Your task to perform on an android device: turn on data saver in the chrome app Image 0: 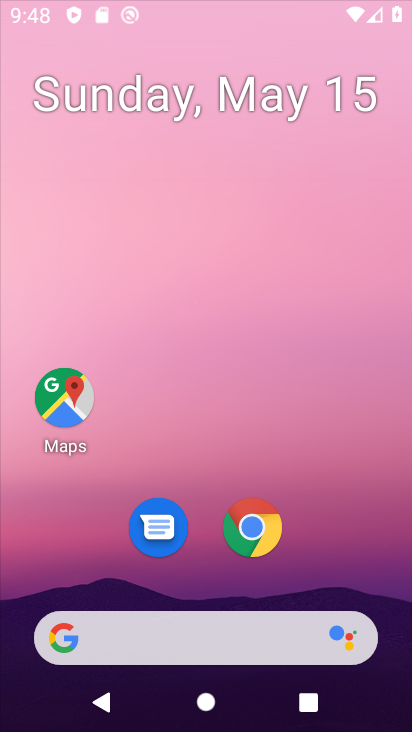
Step 0: drag from (83, 595) to (201, 87)
Your task to perform on an android device: turn on data saver in the chrome app Image 1: 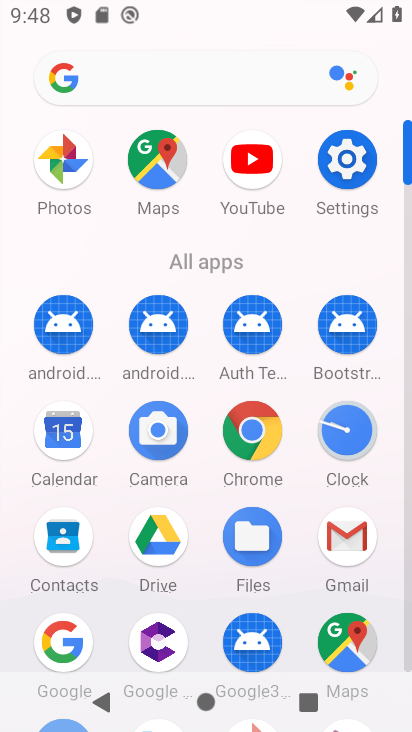
Step 1: click (245, 440)
Your task to perform on an android device: turn on data saver in the chrome app Image 2: 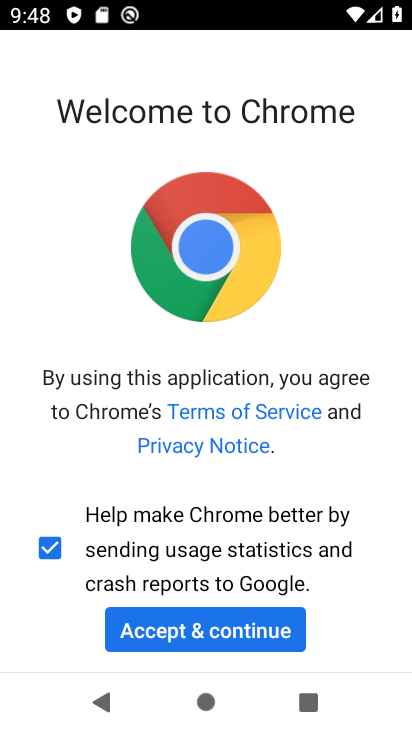
Step 2: click (249, 640)
Your task to perform on an android device: turn on data saver in the chrome app Image 3: 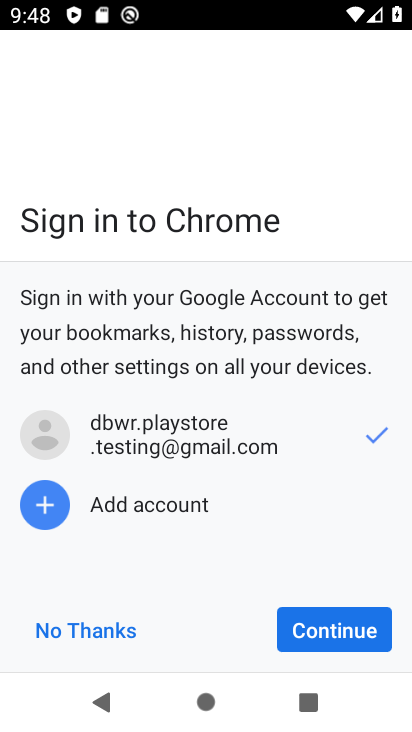
Step 3: click (351, 626)
Your task to perform on an android device: turn on data saver in the chrome app Image 4: 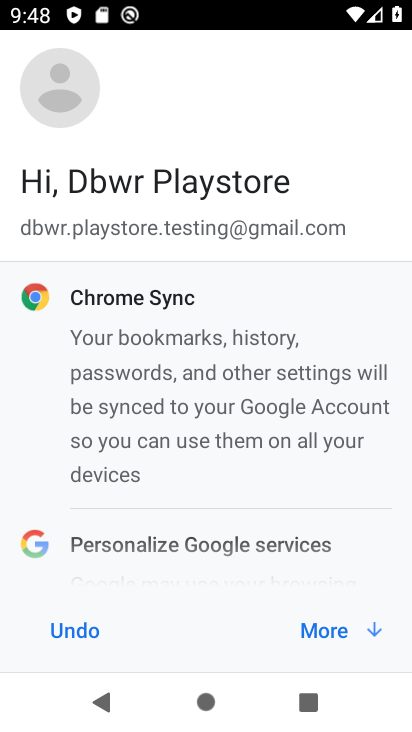
Step 4: click (343, 649)
Your task to perform on an android device: turn on data saver in the chrome app Image 5: 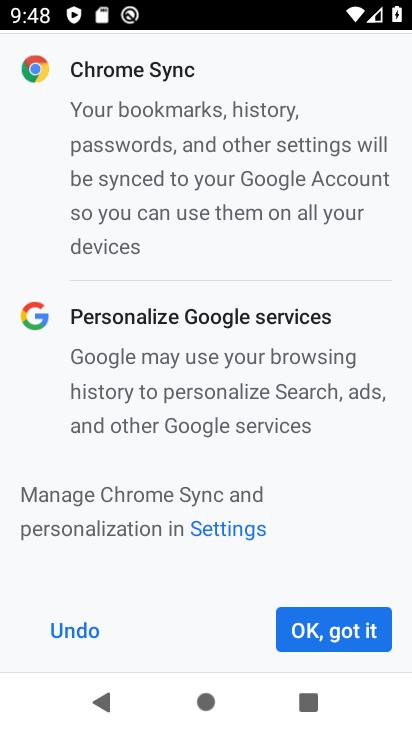
Step 5: click (344, 638)
Your task to perform on an android device: turn on data saver in the chrome app Image 6: 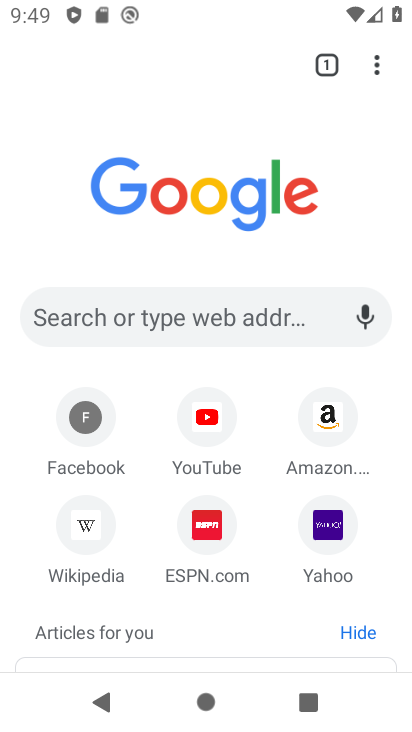
Step 6: drag from (375, 67) to (221, 547)
Your task to perform on an android device: turn on data saver in the chrome app Image 7: 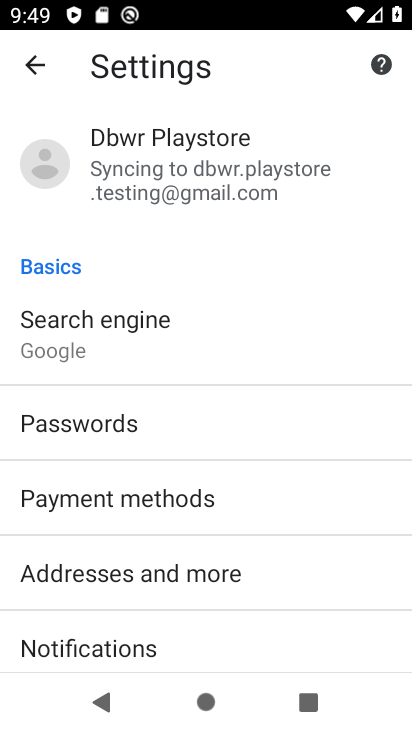
Step 7: drag from (221, 554) to (376, 209)
Your task to perform on an android device: turn on data saver in the chrome app Image 8: 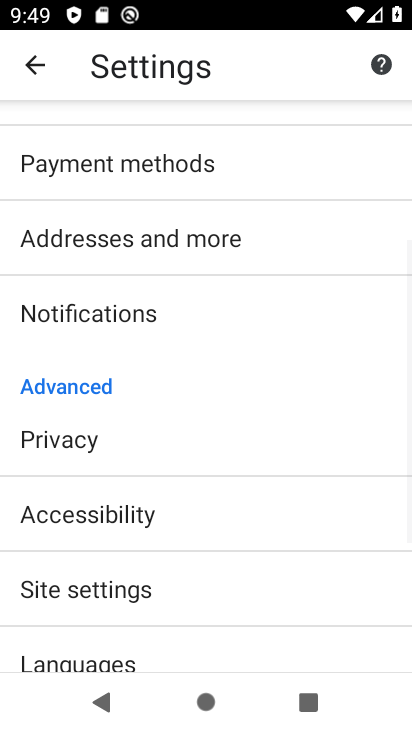
Step 8: drag from (246, 558) to (329, 259)
Your task to perform on an android device: turn on data saver in the chrome app Image 9: 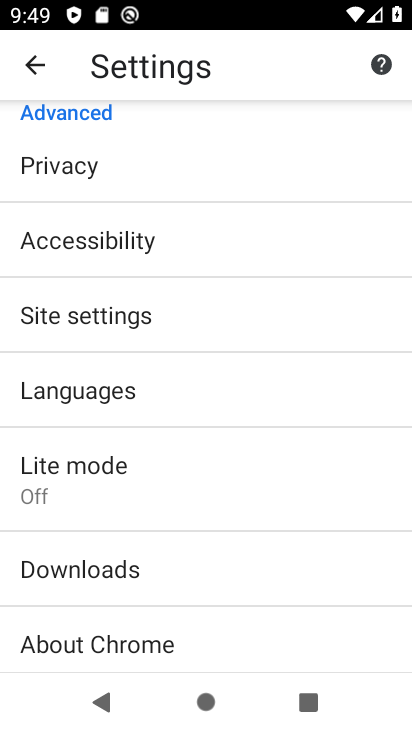
Step 9: click (187, 484)
Your task to perform on an android device: turn on data saver in the chrome app Image 10: 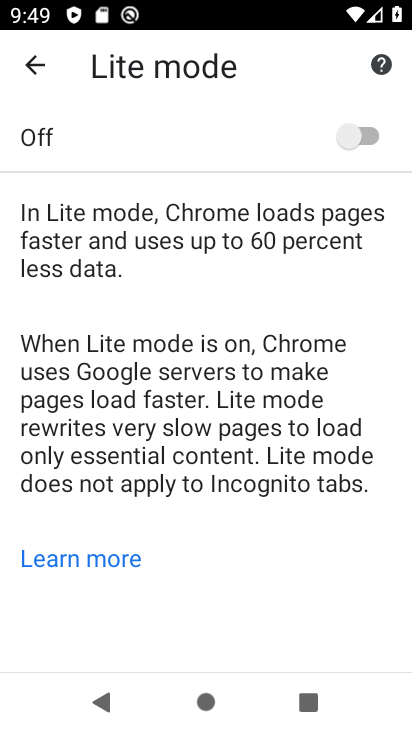
Step 10: click (389, 129)
Your task to perform on an android device: turn on data saver in the chrome app Image 11: 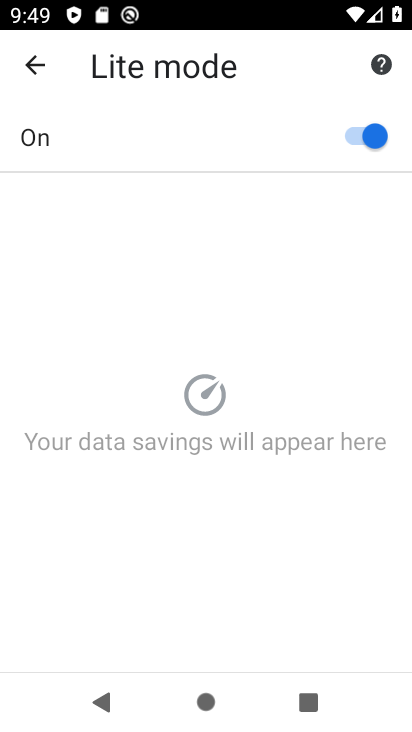
Step 11: task complete